Your task to perform on an android device: Go to Amazon Image 0: 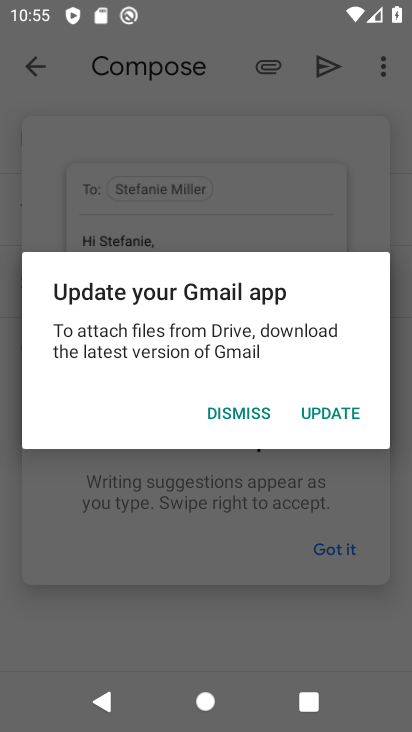
Step 0: press home button
Your task to perform on an android device: Go to Amazon Image 1: 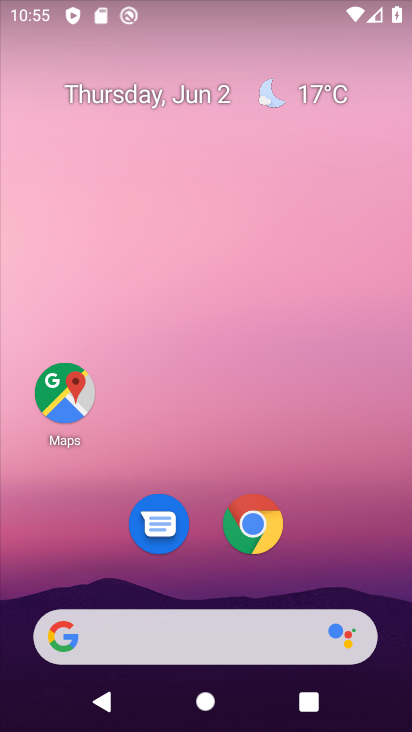
Step 1: click (256, 532)
Your task to perform on an android device: Go to Amazon Image 2: 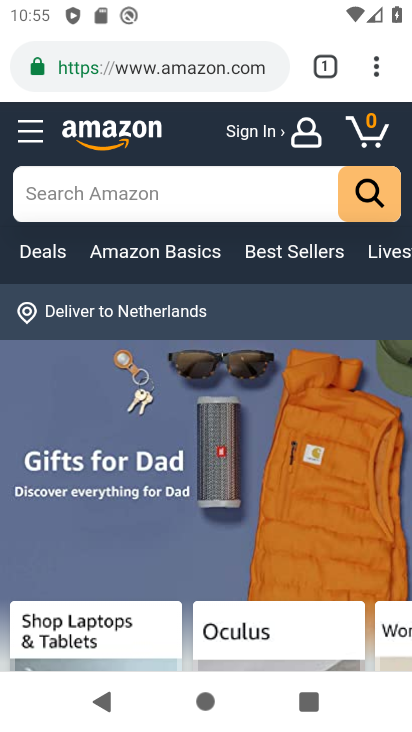
Step 2: task complete